Your task to perform on an android device: Go to CNN.com Image 0: 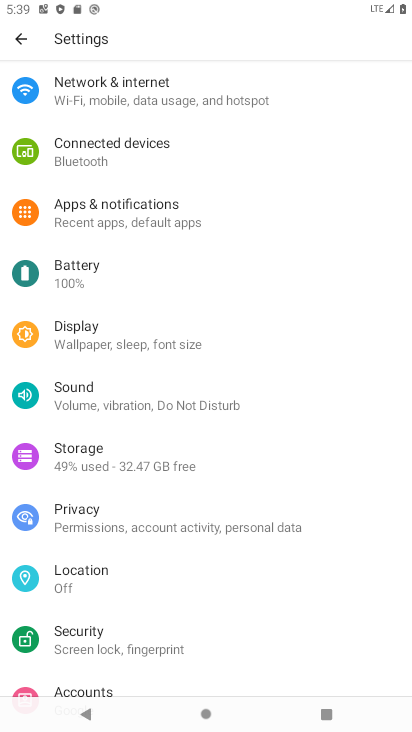
Step 0: press home button
Your task to perform on an android device: Go to CNN.com Image 1: 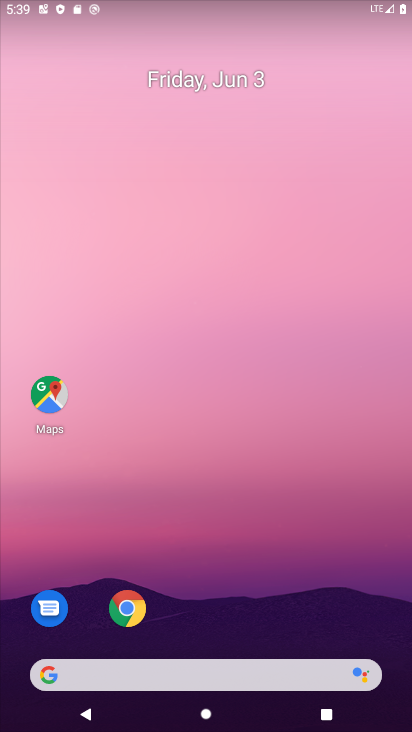
Step 1: click (129, 605)
Your task to perform on an android device: Go to CNN.com Image 2: 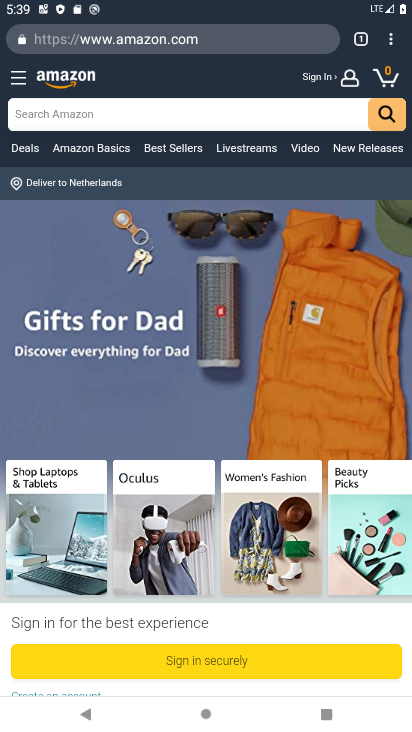
Step 2: click (360, 38)
Your task to perform on an android device: Go to CNN.com Image 3: 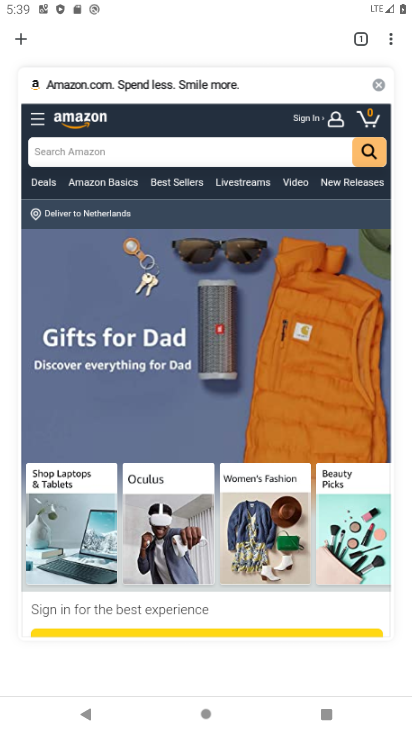
Step 3: click (20, 38)
Your task to perform on an android device: Go to CNN.com Image 4: 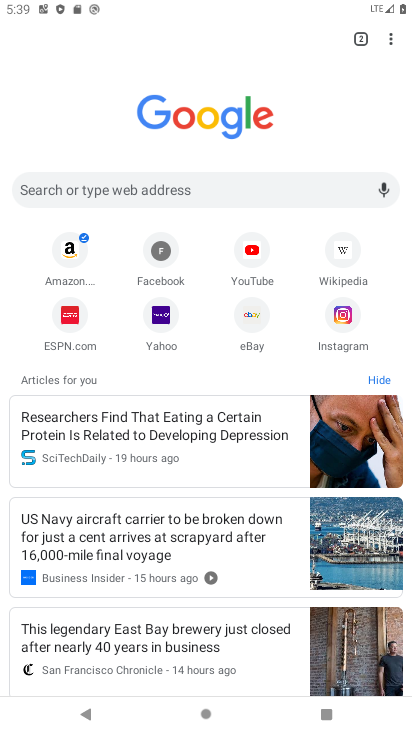
Step 4: click (137, 194)
Your task to perform on an android device: Go to CNN.com Image 5: 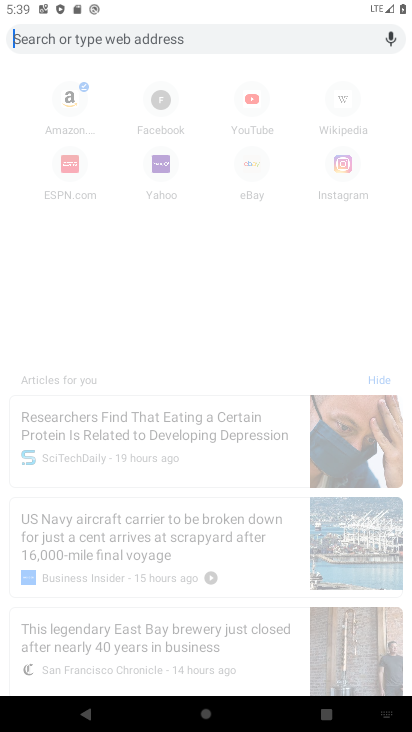
Step 5: type "CNN.com"
Your task to perform on an android device: Go to CNN.com Image 6: 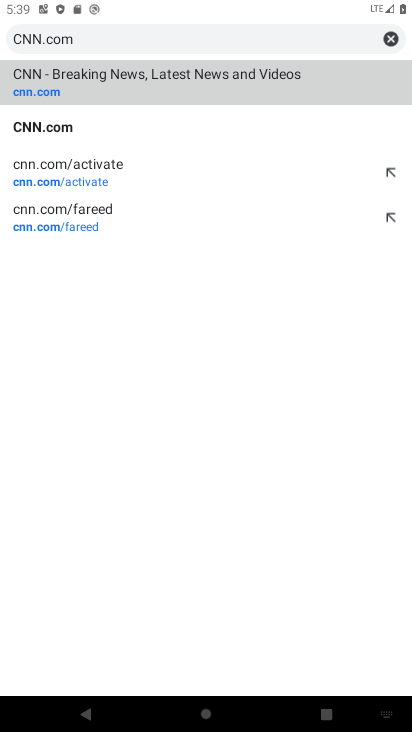
Step 6: click (160, 122)
Your task to perform on an android device: Go to CNN.com Image 7: 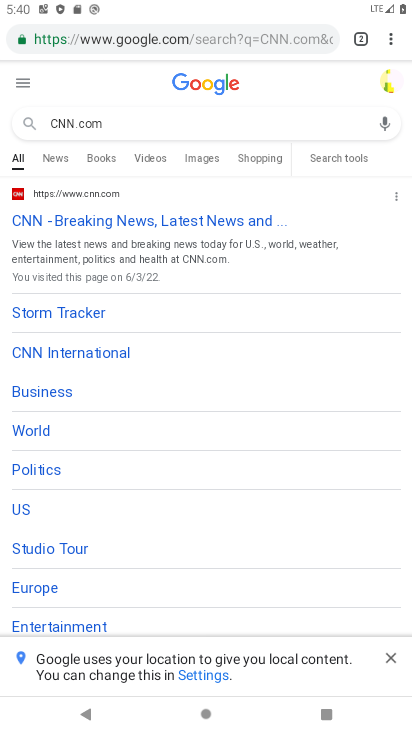
Step 7: click (107, 221)
Your task to perform on an android device: Go to CNN.com Image 8: 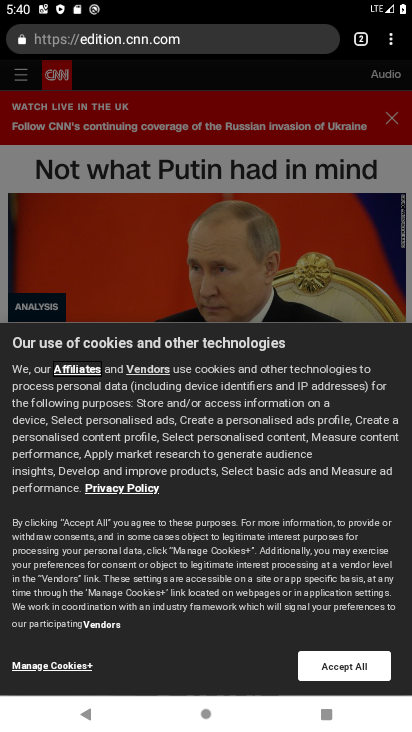
Step 8: task complete